Your task to perform on an android device: toggle javascript in the chrome app Image 0: 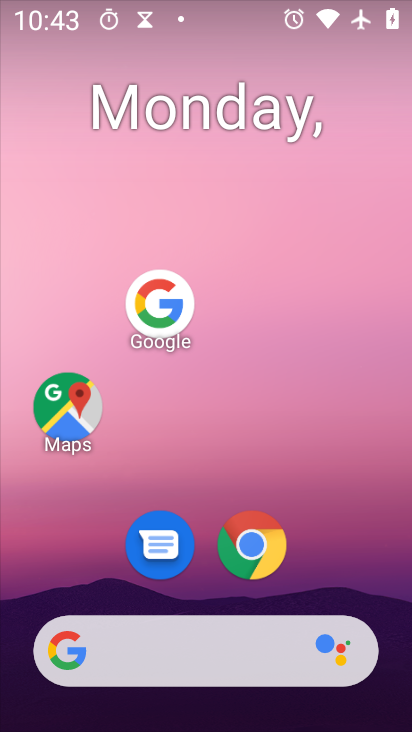
Step 0: press home button
Your task to perform on an android device: toggle javascript in the chrome app Image 1: 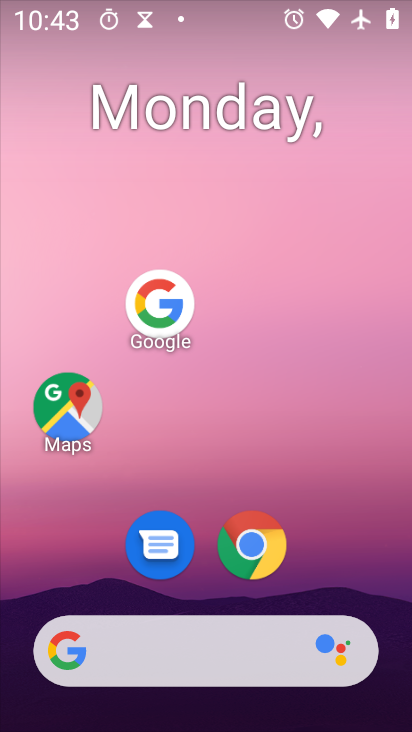
Step 1: click (258, 560)
Your task to perform on an android device: toggle javascript in the chrome app Image 2: 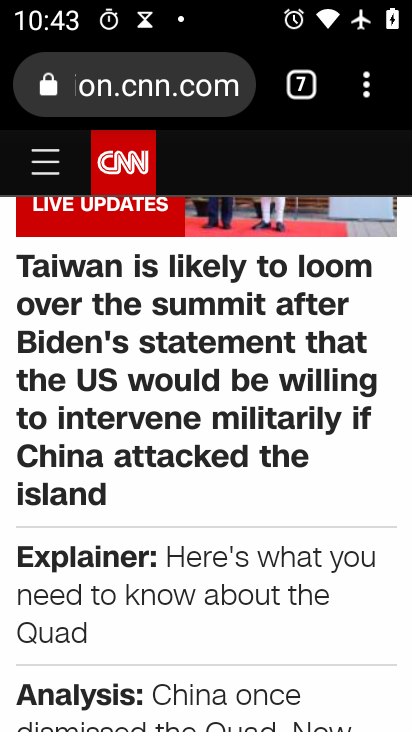
Step 2: drag from (369, 93) to (239, 612)
Your task to perform on an android device: toggle javascript in the chrome app Image 3: 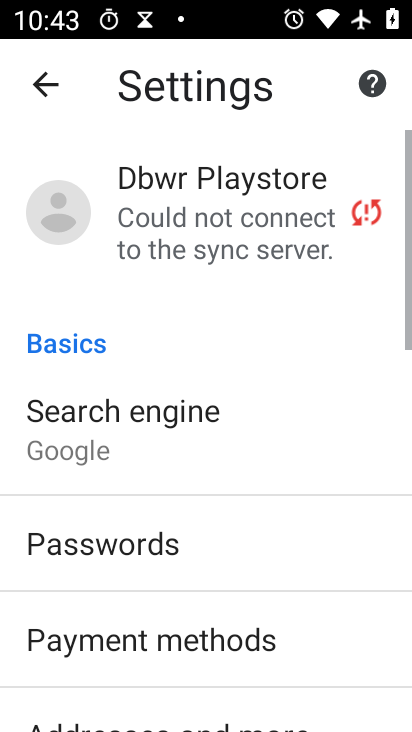
Step 3: drag from (195, 686) to (251, 132)
Your task to perform on an android device: toggle javascript in the chrome app Image 4: 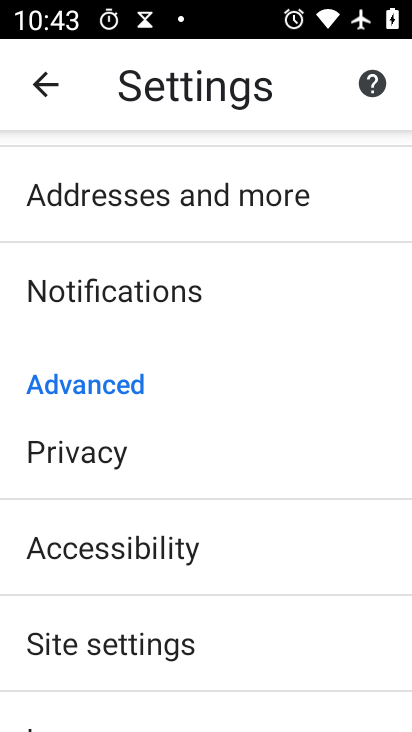
Step 4: drag from (281, 677) to (269, 428)
Your task to perform on an android device: toggle javascript in the chrome app Image 5: 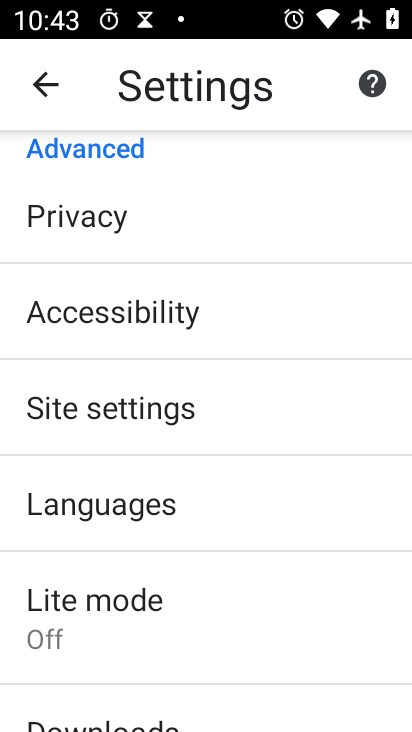
Step 5: click (135, 412)
Your task to perform on an android device: toggle javascript in the chrome app Image 6: 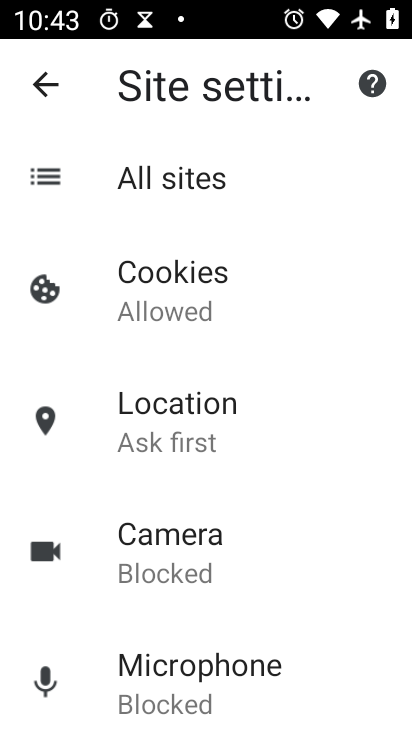
Step 6: drag from (297, 646) to (203, 205)
Your task to perform on an android device: toggle javascript in the chrome app Image 7: 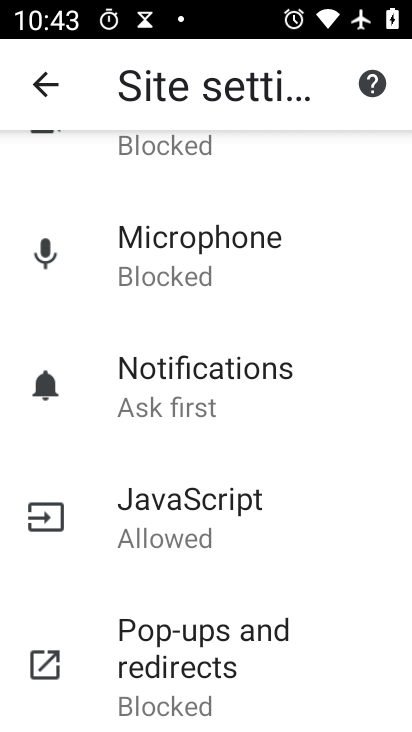
Step 7: click (186, 518)
Your task to perform on an android device: toggle javascript in the chrome app Image 8: 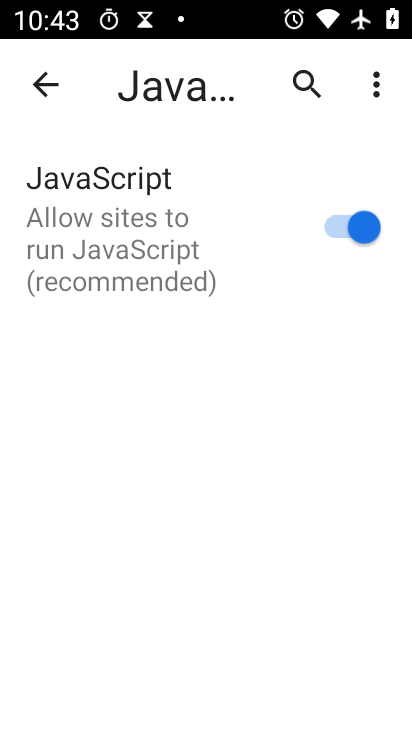
Step 8: click (331, 237)
Your task to perform on an android device: toggle javascript in the chrome app Image 9: 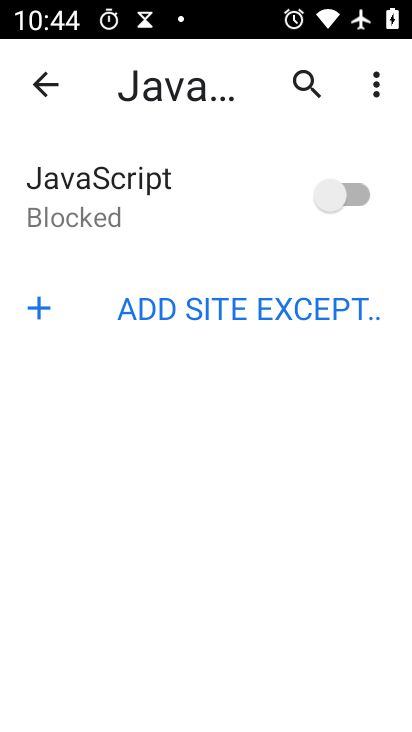
Step 9: task complete